Your task to perform on an android device: Open Google Chrome and click the shortcut for Amazon.com Image 0: 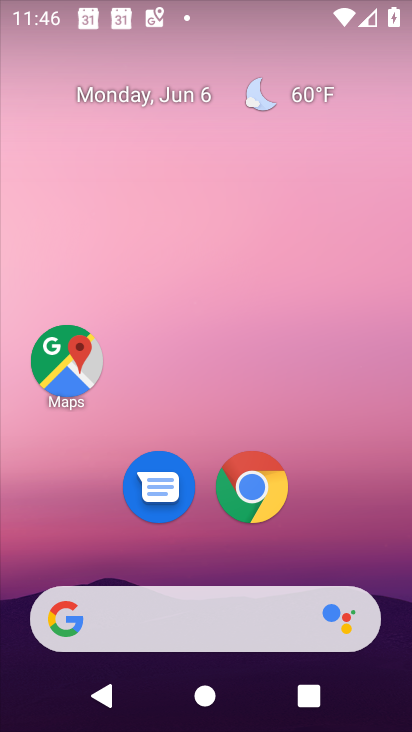
Step 0: click (254, 486)
Your task to perform on an android device: Open Google Chrome and click the shortcut for Amazon.com Image 1: 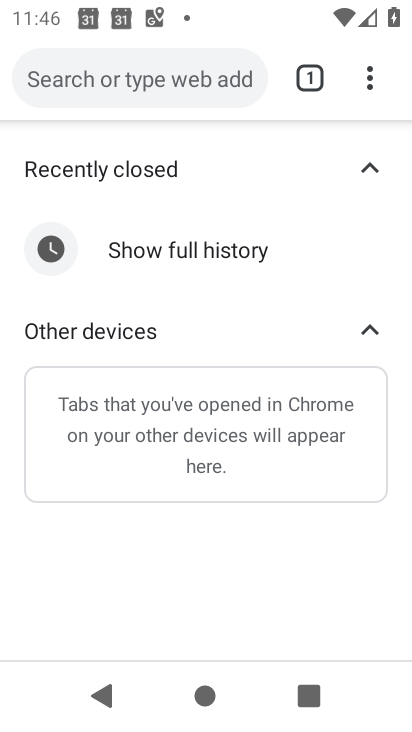
Step 1: click (316, 86)
Your task to perform on an android device: Open Google Chrome and click the shortcut for Amazon.com Image 2: 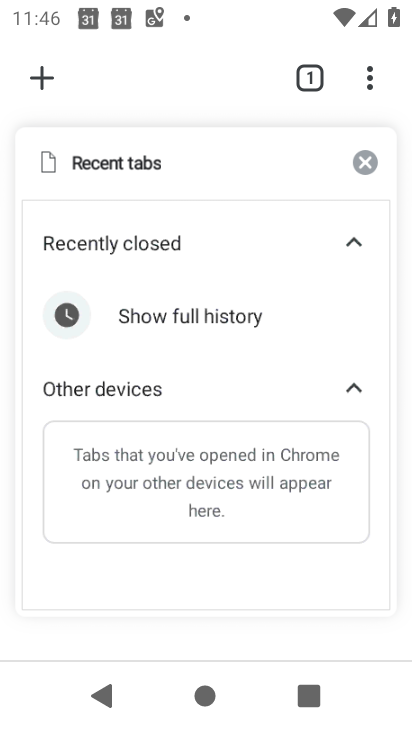
Step 2: click (61, 75)
Your task to perform on an android device: Open Google Chrome and click the shortcut for Amazon.com Image 3: 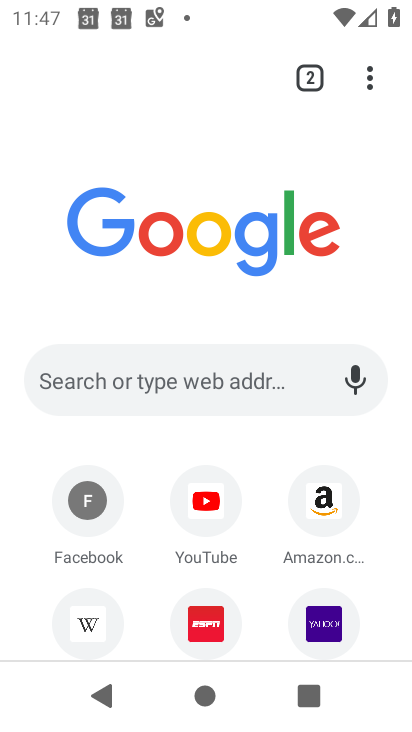
Step 3: click (338, 524)
Your task to perform on an android device: Open Google Chrome and click the shortcut for Amazon.com Image 4: 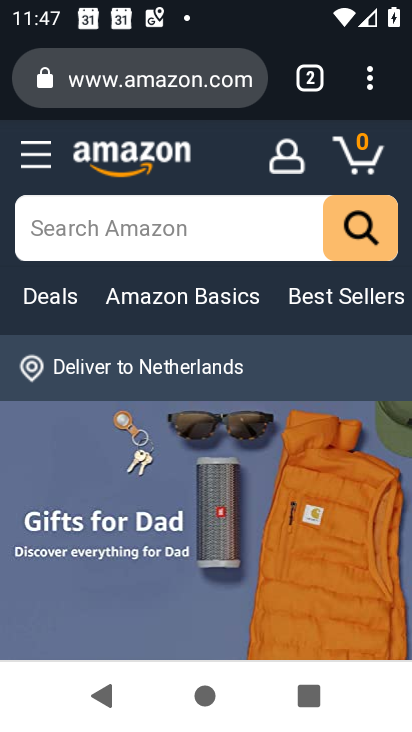
Step 4: task complete